Your task to perform on an android device: Empty the shopping cart on amazon.com. Add acer nitro to the cart on amazon.com Image 0: 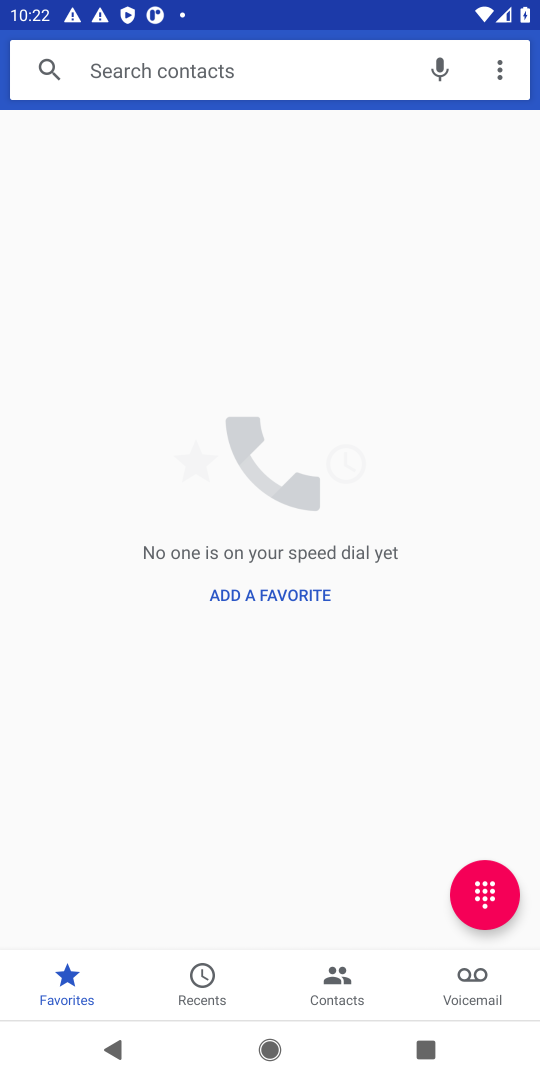
Step 0: press home button
Your task to perform on an android device: Empty the shopping cart on amazon.com. Add acer nitro to the cart on amazon.com Image 1: 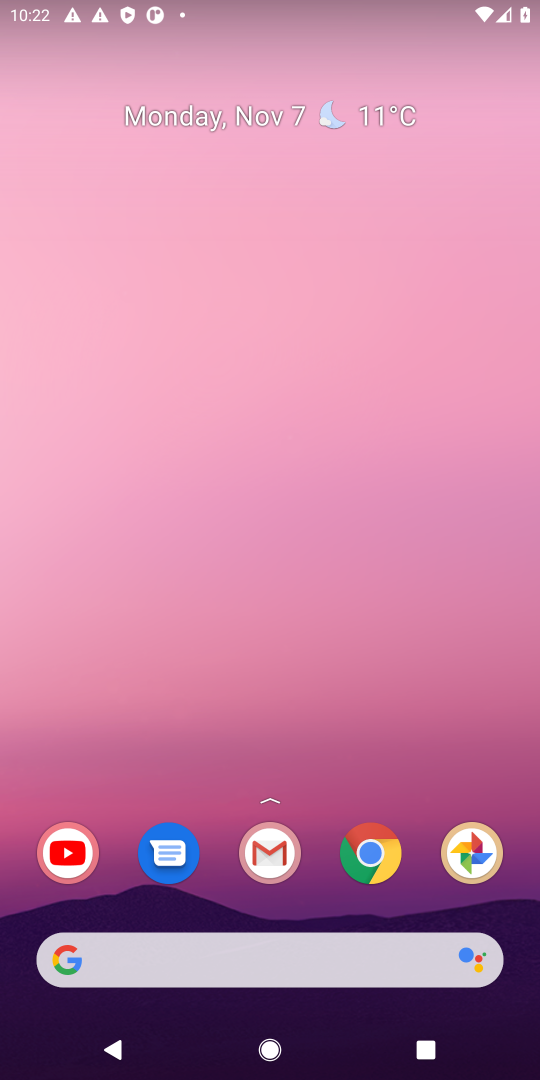
Step 1: click (208, 966)
Your task to perform on an android device: Empty the shopping cart on amazon.com. Add acer nitro to the cart on amazon.com Image 2: 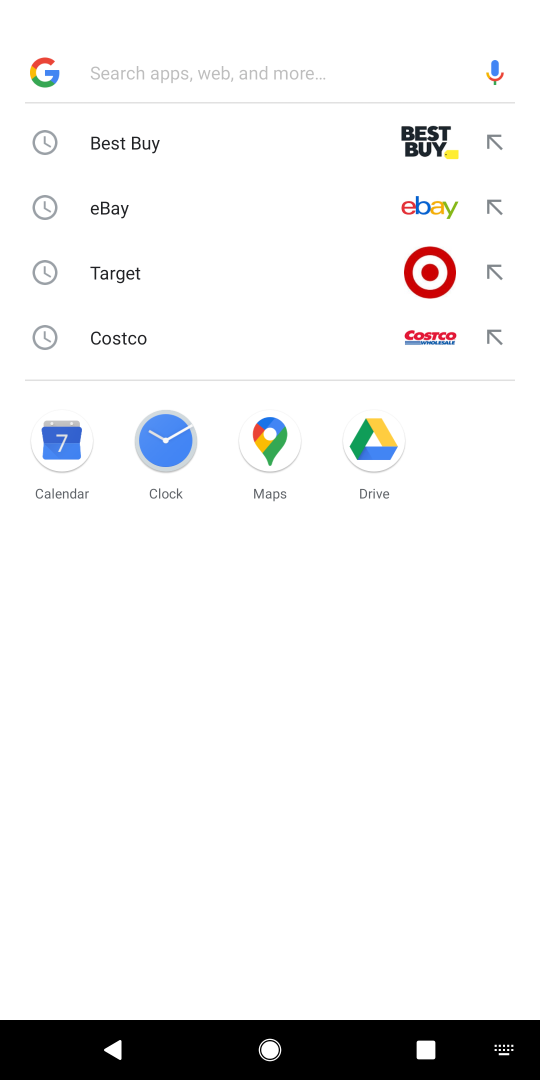
Step 2: type "amazon"
Your task to perform on an android device: Empty the shopping cart on amazon.com. Add acer nitro to the cart on amazon.com Image 3: 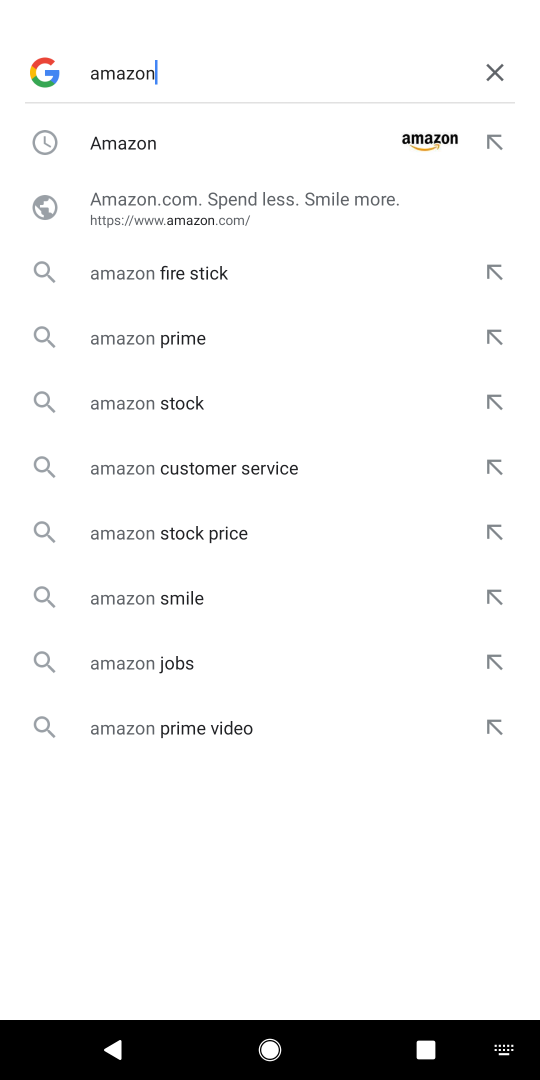
Step 3: click (222, 133)
Your task to perform on an android device: Empty the shopping cart on amazon.com. Add acer nitro to the cart on amazon.com Image 4: 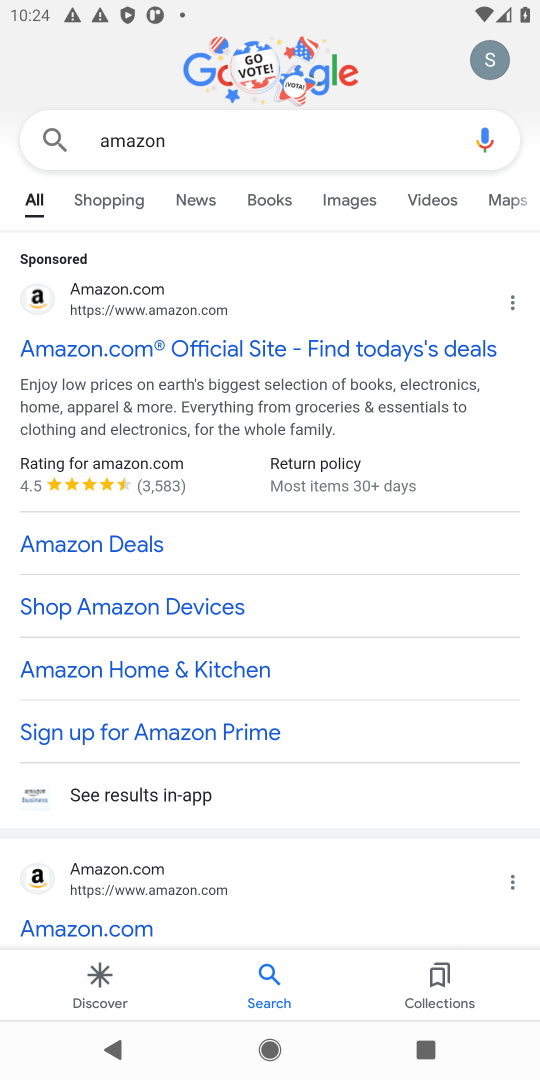
Step 4: click (153, 356)
Your task to perform on an android device: Empty the shopping cart on amazon.com. Add acer nitro to the cart on amazon.com Image 5: 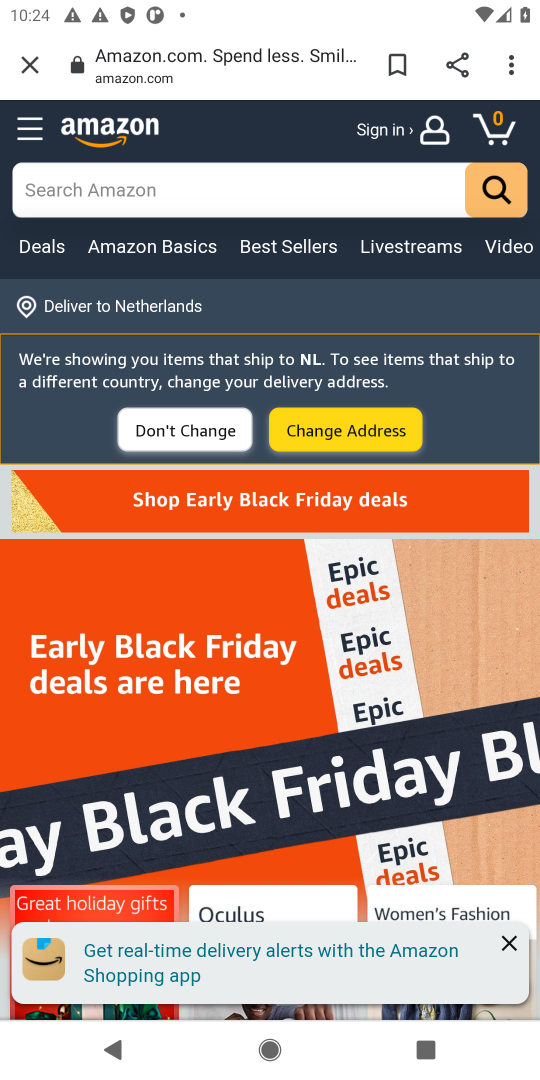
Step 5: click (197, 215)
Your task to perform on an android device: Empty the shopping cart on amazon.com. Add acer nitro to the cart on amazon.com Image 6: 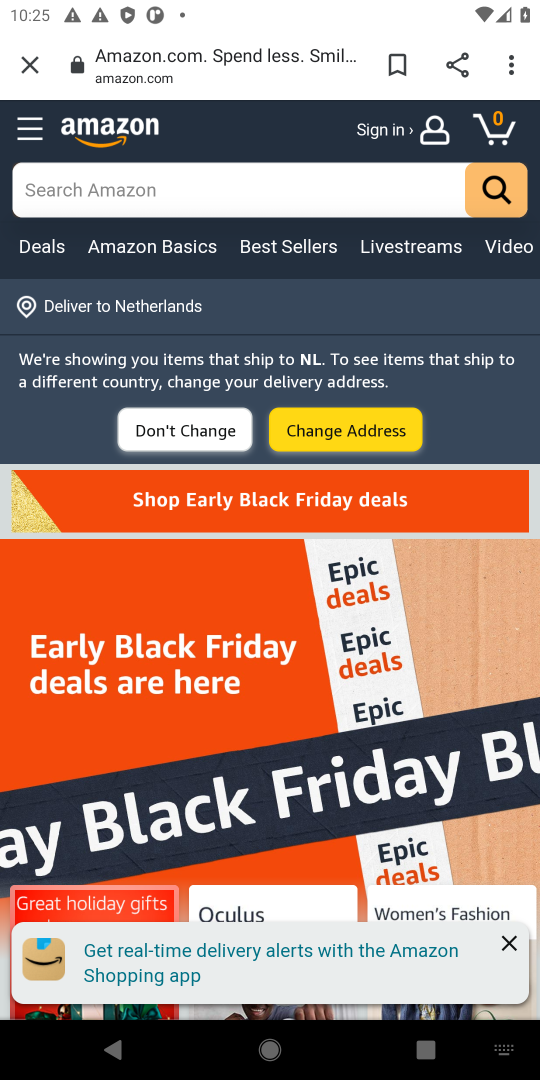
Step 6: task complete